Your task to perform on an android device: empty trash in google photos Image 0: 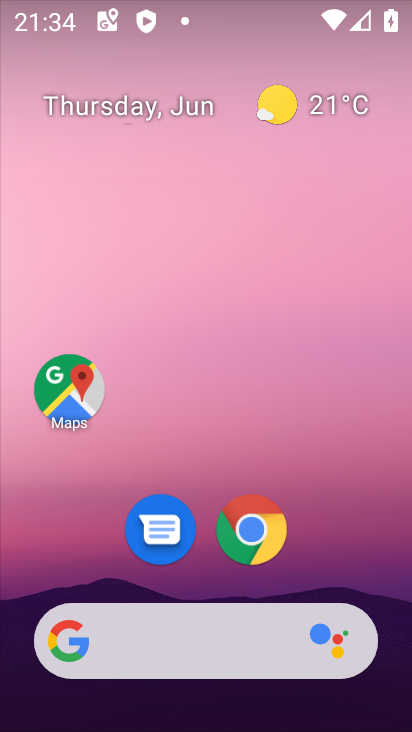
Step 0: drag from (338, 498) to (204, 96)
Your task to perform on an android device: empty trash in google photos Image 1: 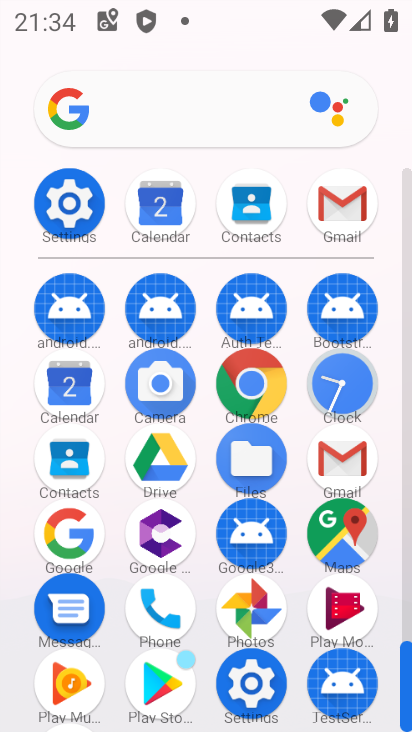
Step 1: drag from (198, 545) to (203, 195)
Your task to perform on an android device: empty trash in google photos Image 2: 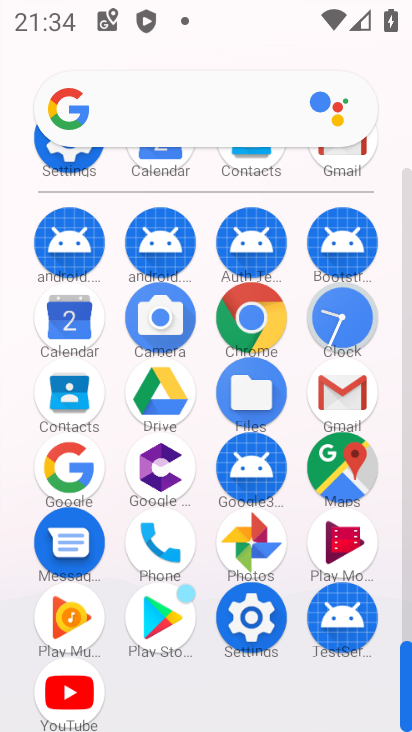
Step 2: click (252, 541)
Your task to perform on an android device: empty trash in google photos Image 3: 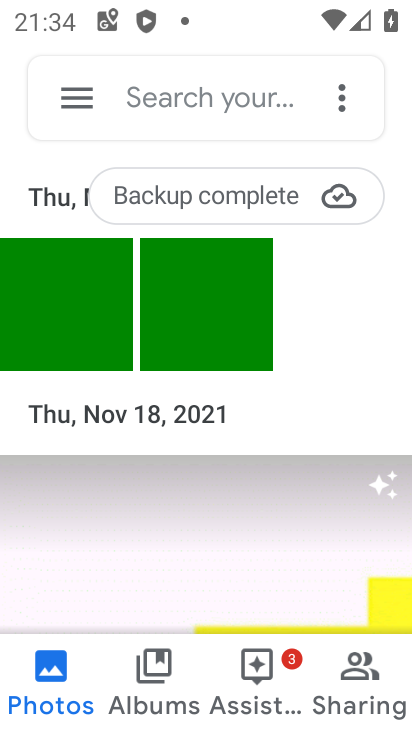
Step 3: click (71, 97)
Your task to perform on an android device: empty trash in google photos Image 4: 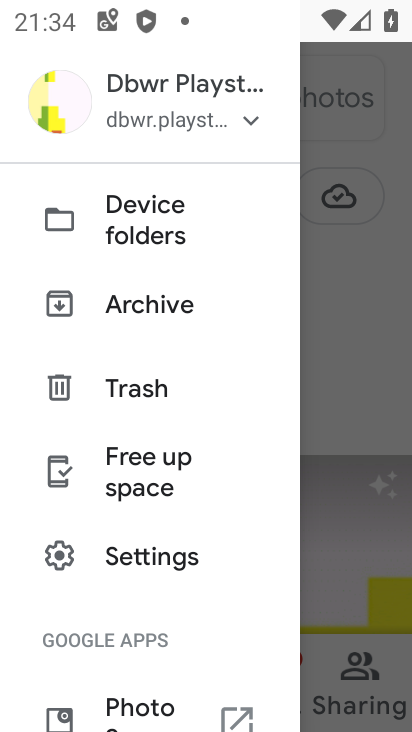
Step 4: click (142, 391)
Your task to perform on an android device: empty trash in google photos Image 5: 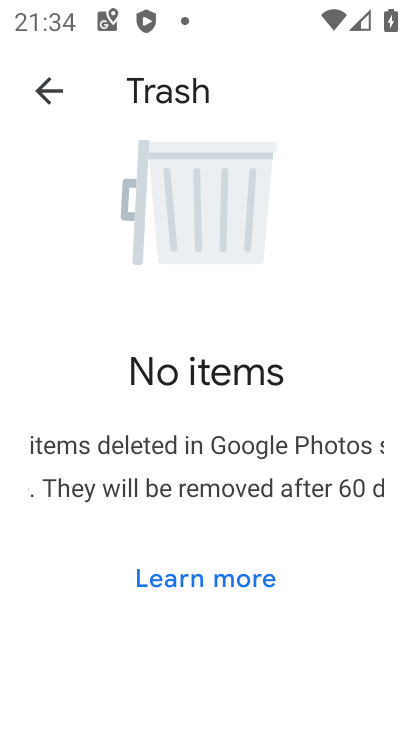
Step 5: task complete